Your task to perform on an android device: Show me recent news Image 0: 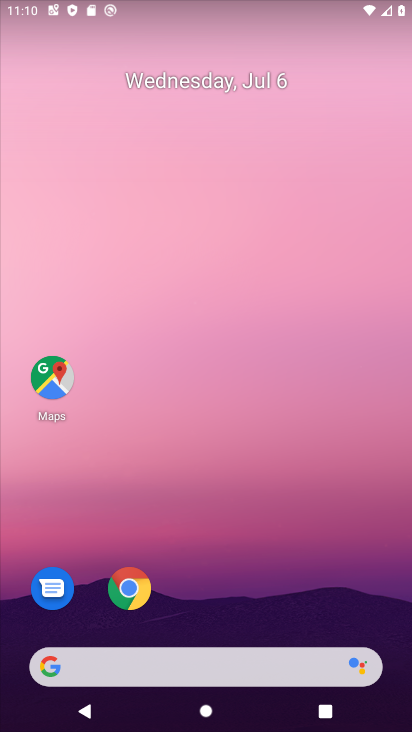
Step 0: drag from (255, 620) to (256, 281)
Your task to perform on an android device: Show me recent news Image 1: 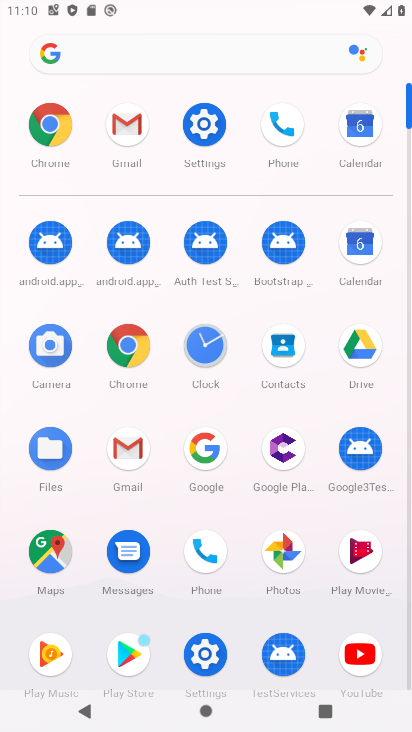
Step 1: click (54, 117)
Your task to perform on an android device: Show me recent news Image 2: 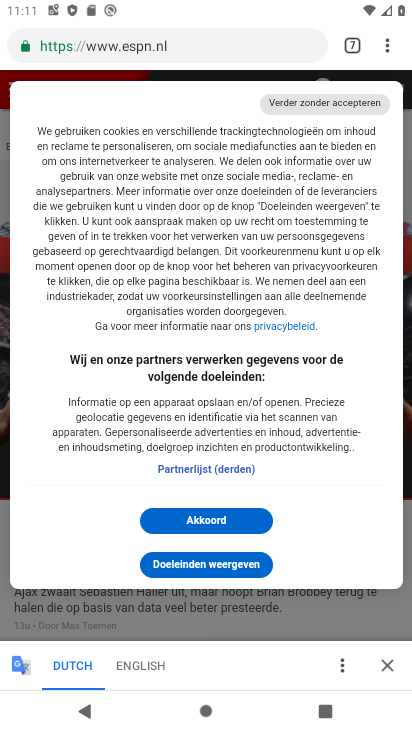
Step 2: click (238, 510)
Your task to perform on an android device: Show me recent news Image 3: 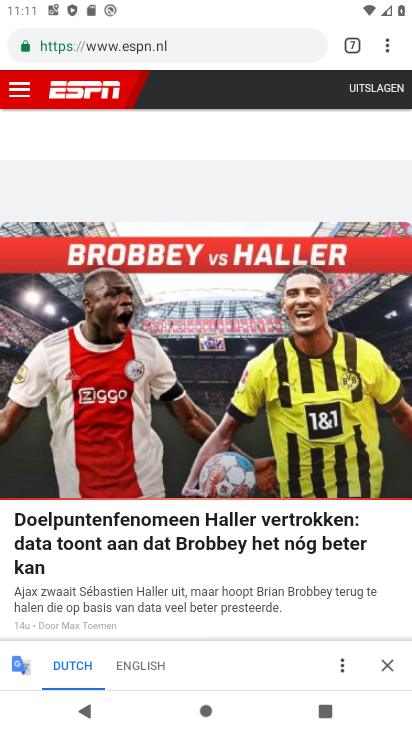
Step 3: click (394, 44)
Your task to perform on an android device: Show me recent news Image 4: 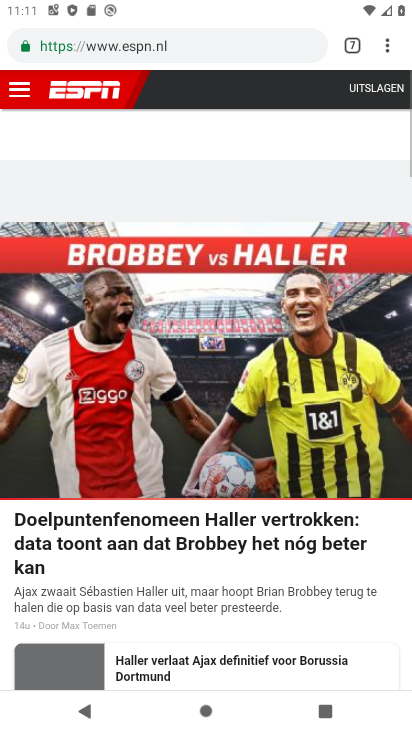
Step 4: click (388, 52)
Your task to perform on an android device: Show me recent news Image 5: 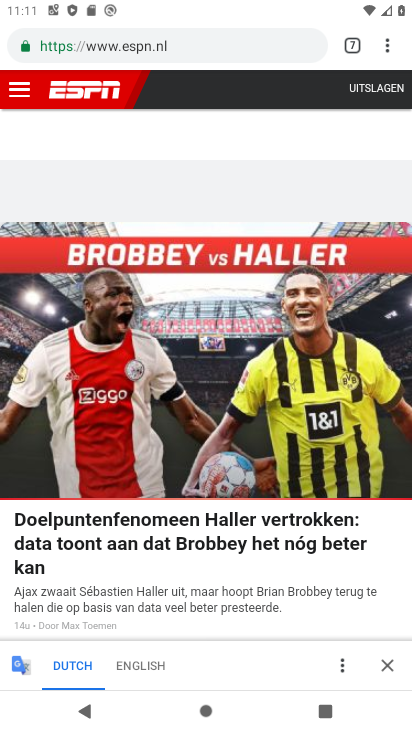
Step 5: click (388, 46)
Your task to perform on an android device: Show me recent news Image 6: 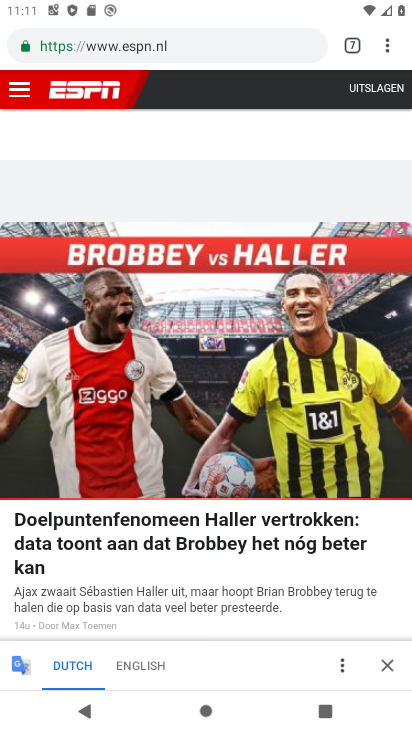
Step 6: click (399, 47)
Your task to perform on an android device: Show me recent news Image 7: 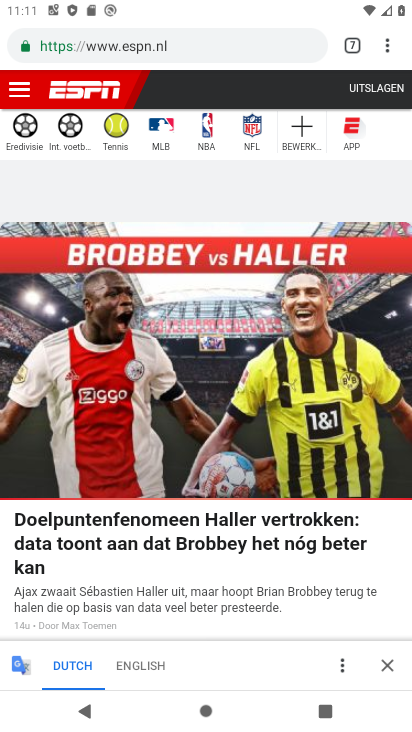
Step 7: click (399, 34)
Your task to perform on an android device: Show me recent news Image 8: 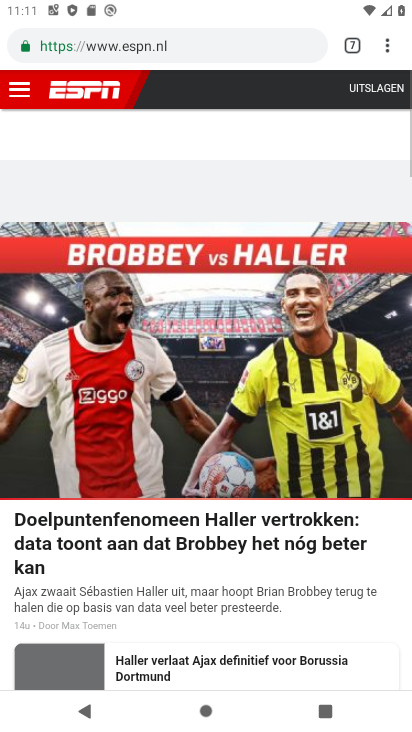
Step 8: click (392, 45)
Your task to perform on an android device: Show me recent news Image 9: 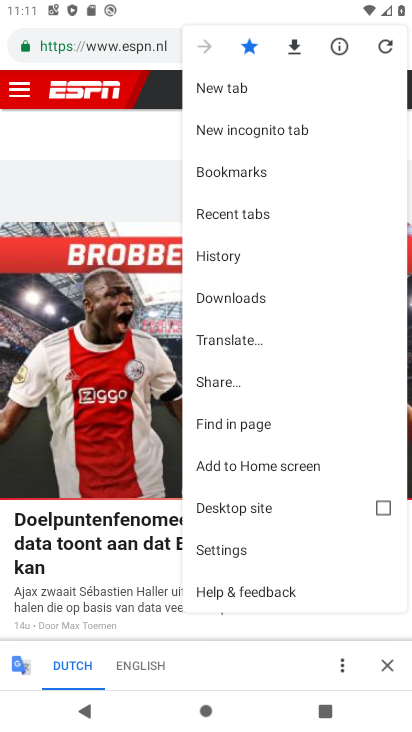
Step 9: click (202, 90)
Your task to perform on an android device: Show me recent news Image 10: 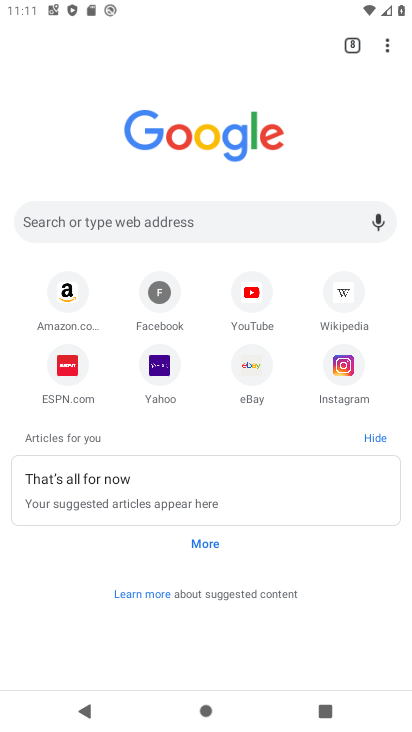
Step 10: click (177, 212)
Your task to perform on an android device: Show me recent news Image 11: 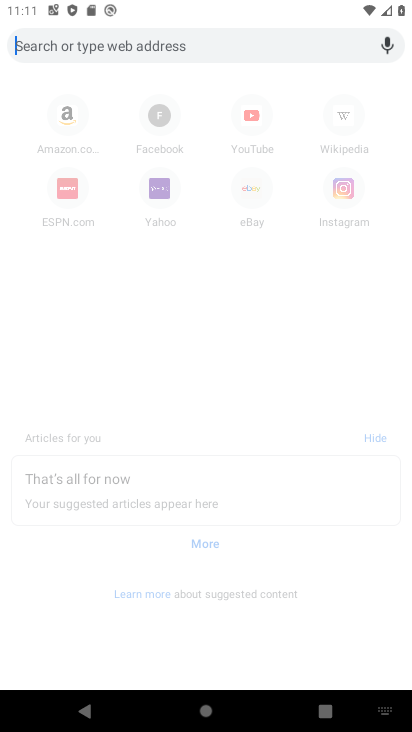
Step 11: type "Show me recent news "
Your task to perform on an android device: Show me recent news Image 12: 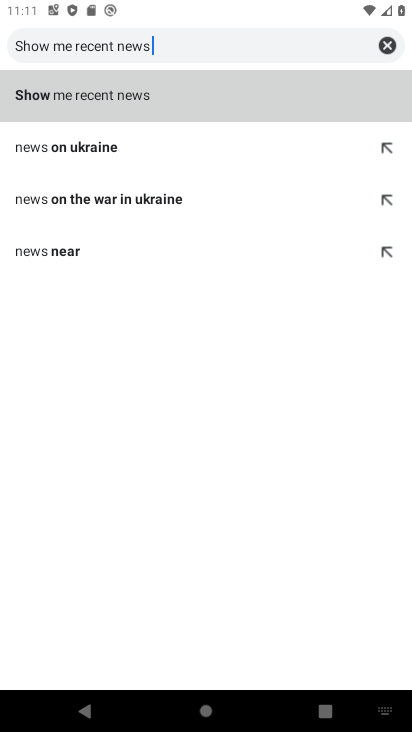
Step 12: click (267, 95)
Your task to perform on an android device: Show me recent news Image 13: 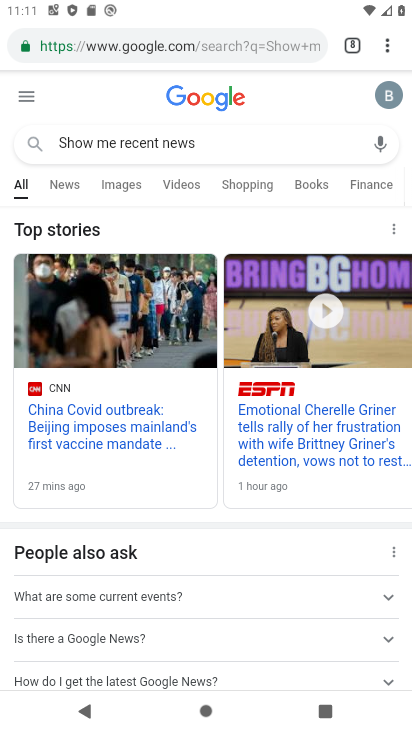
Step 13: task complete